Your task to perform on an android device: Open Amazon Image 0: 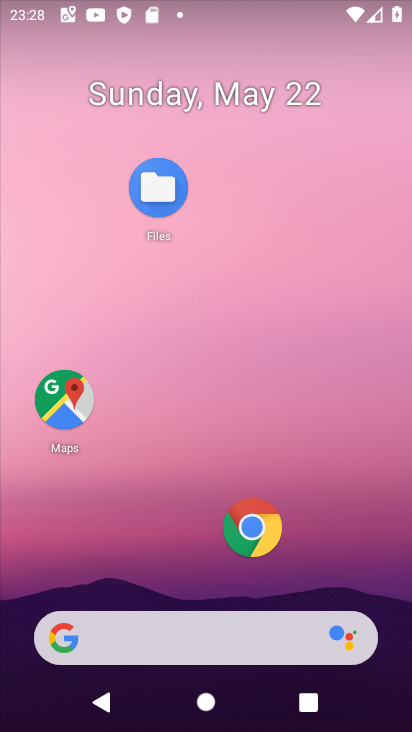
Step 0: click (260, 526)
Your task to perform on an android device: Open Amazon Image 1: 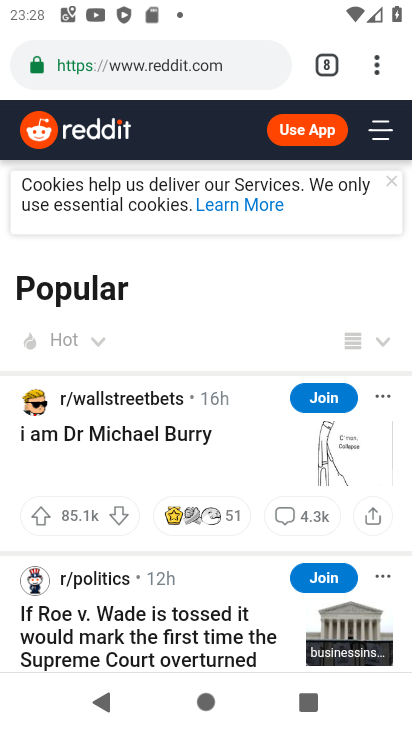
Step 1: click (376, 62)
Your task to perform on an android device: Open Amazon Image 2: 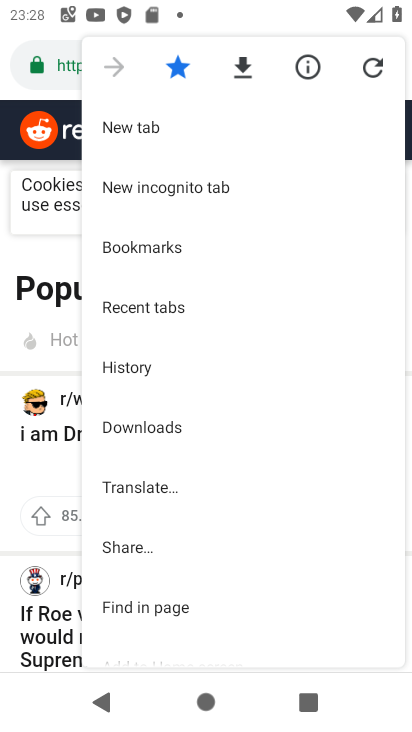
Step 2: click (146, 125)
Your task to perform on an android device: Open Amazon Image 3: 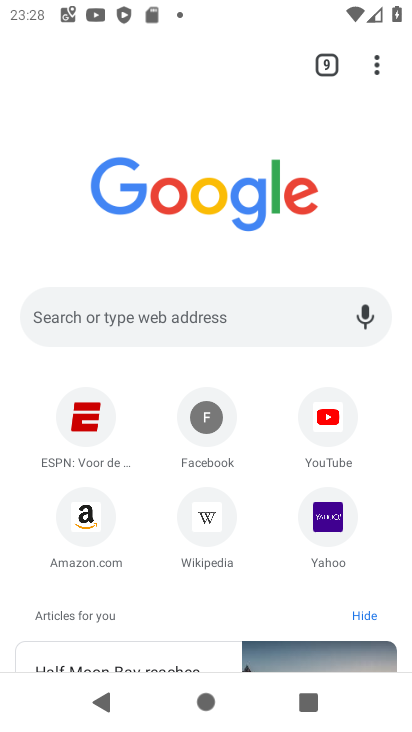
Step 3: click (94, 511)
Your task to perform on an android device: Open Amazon Image 4: 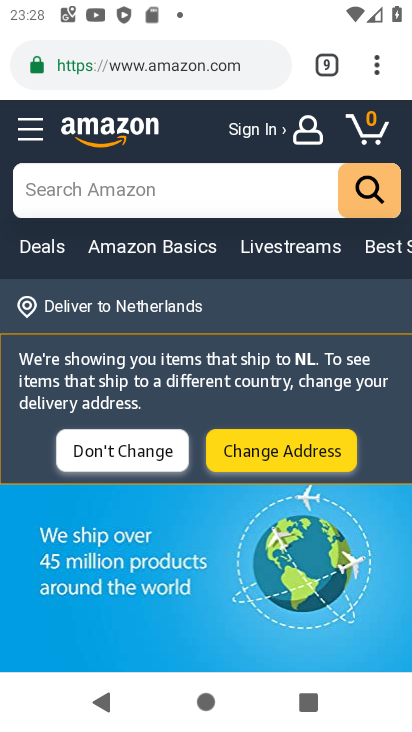
Step 4: task complete